Your task to perform on an android device: Search for vegetarian restaurants on Maps Image 0: 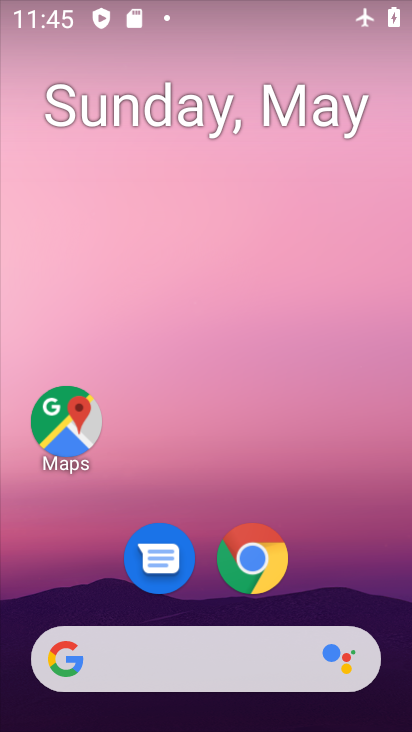
Step 0: drag from (370, 576) to (366, 119)
Your task to perform on an android device: Search for vegetarian restaurants on Maps Image 1: 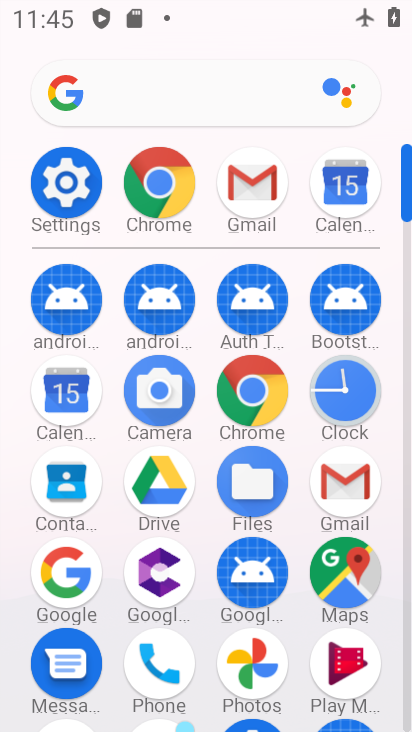
Step 1: click (358, 578)
Your task to perform on an android device: Search for vegetarian restaurants on Maps Image 2: 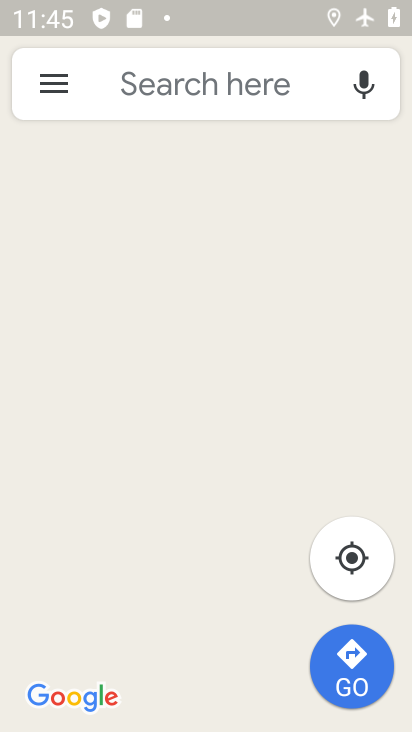
Step 2: click (176, 89)
Your task to perform on an android device: Search for vegetarian restaurants on Maps Image 3: 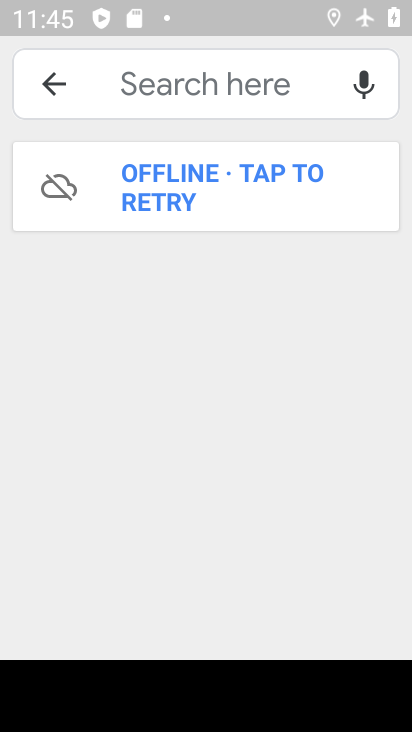
Step 3: type "vegetrain restaurants"
Your task to perform on an android device: Search for vegetarian restaurants on Maps Image 4: 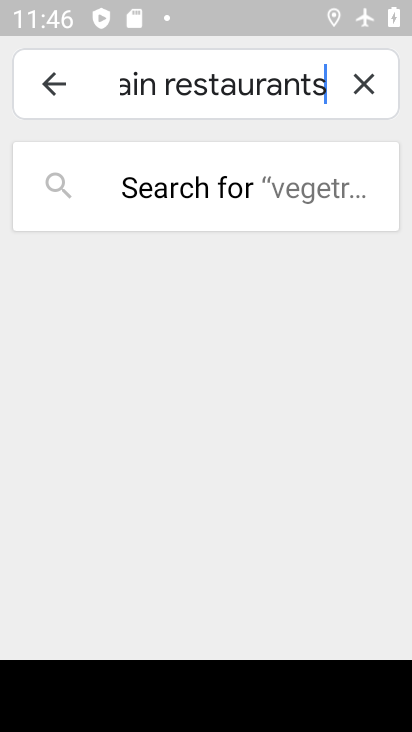
Step 4: task complete